Your task to perform on an android device: Open Amazon Image 0: 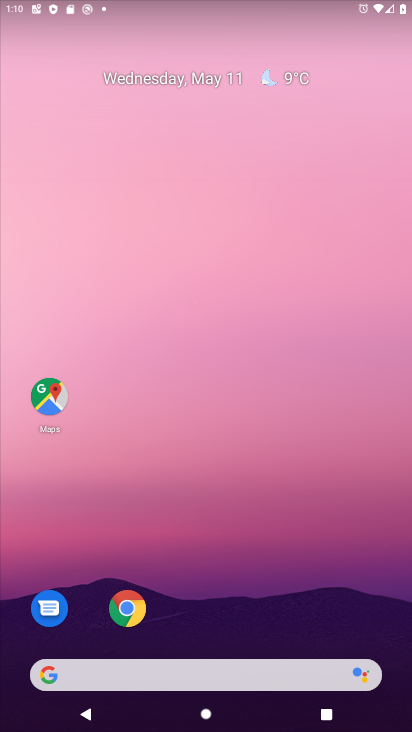
Step 0: drag from (321, 549) to (238, 25)
Your task to perform on an android device: Open Amazon Image 1: 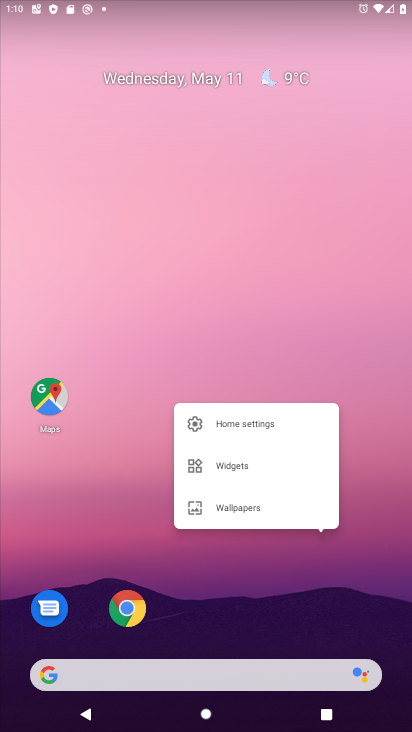
Step 1: click (213, 314)
Your task to perform on an android device: Open Amazon Image 2: 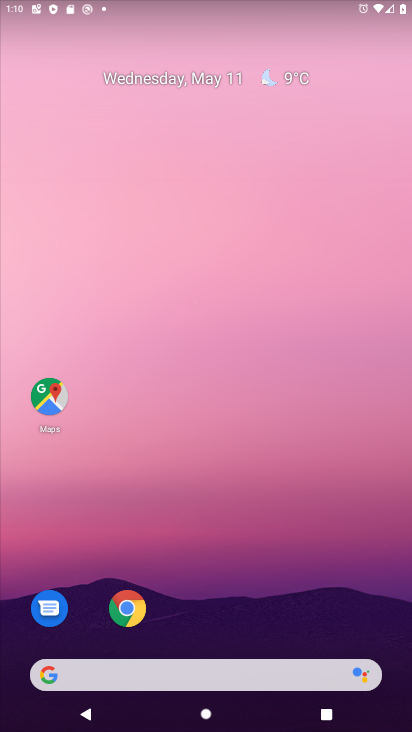
Step 2: click (139, 607)
Your task to perform on an android device: Open Amazon Image 3: 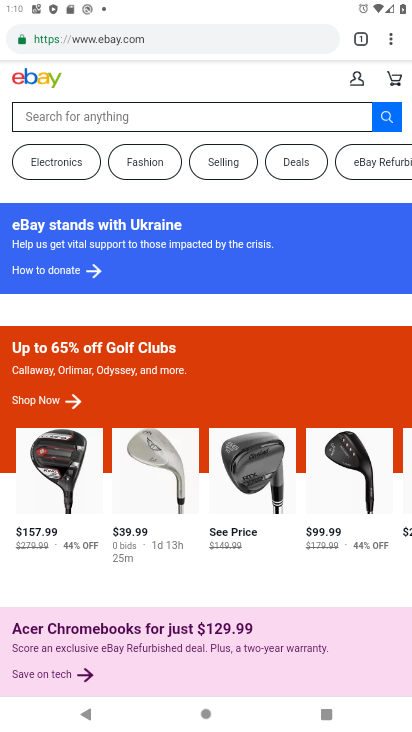
Step 3: click (256, 44)
Your task to perform on an android device: Open Amazon Image 4: 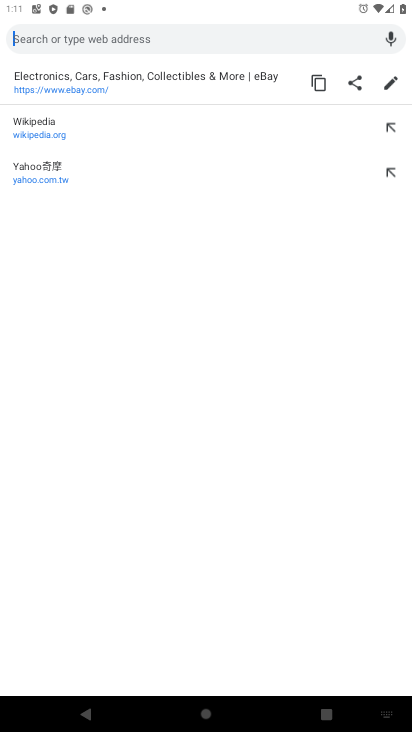
Step 4: type "amazon"
Your task to perform on an android device: Open Amazon Image 5: 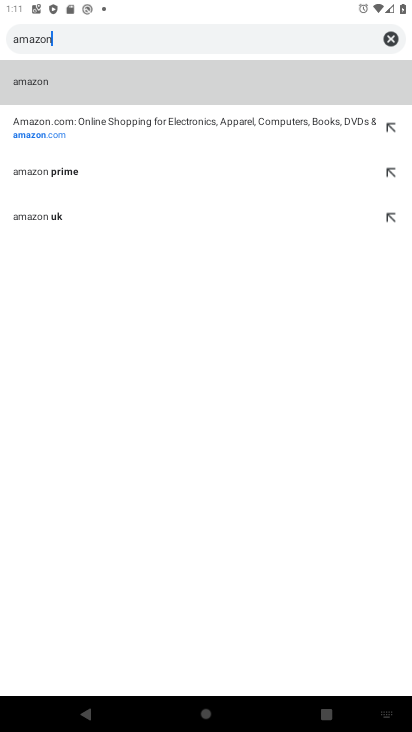
Step 5: click (265, 137)
Your task to perform on an android device: Open Amazon Image 6: 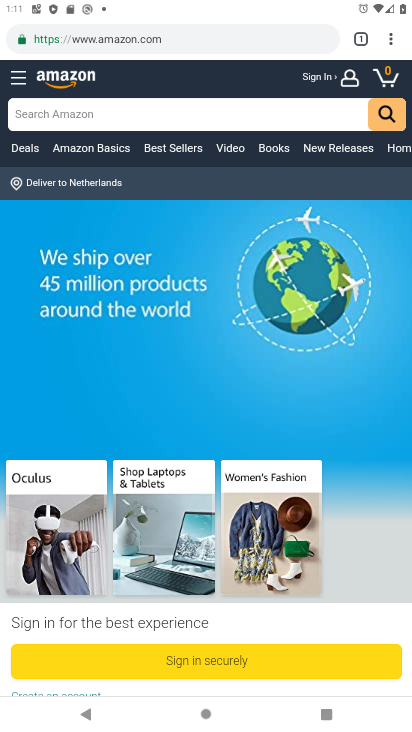
Step 6: task complete